Your task to perform on an android device: turn notification dots on Image 0: 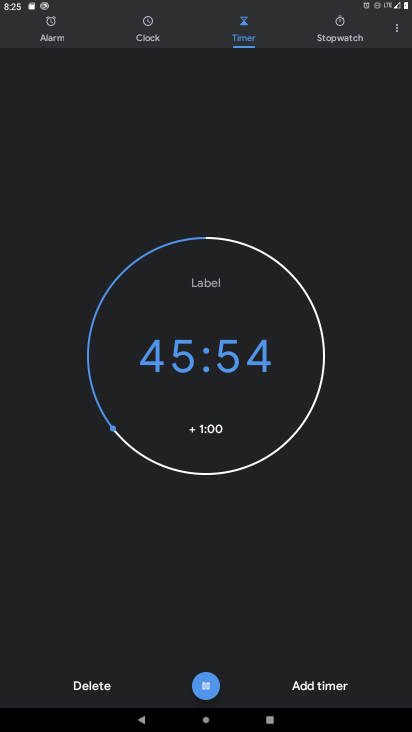
Step 0: press home button
Your task to perform on an android device: turn notification dots on Image 1: 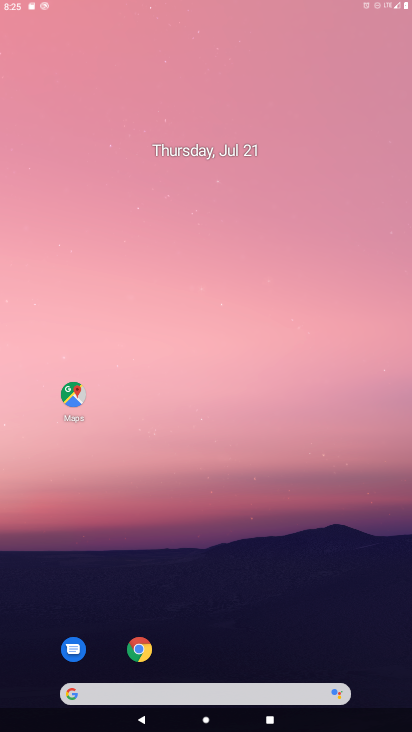
Step 1: drag from (347, 583) to (0, 139)
Your task to perform on an android device: turn notification dots on Image 2: 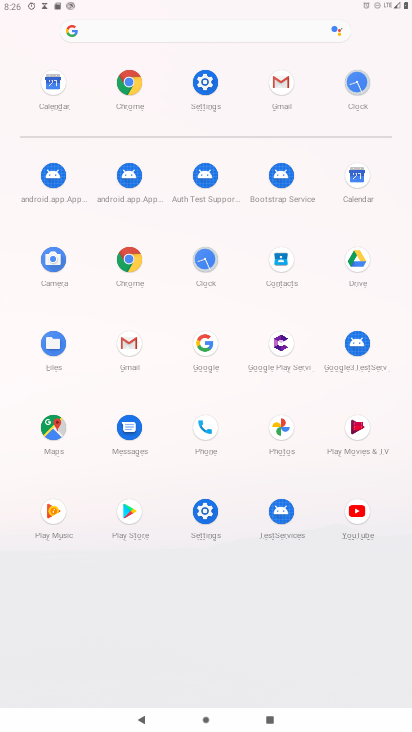
Step 2: click (199, 94)
Your task to perform on an android device: turn notification dots on Image 3: 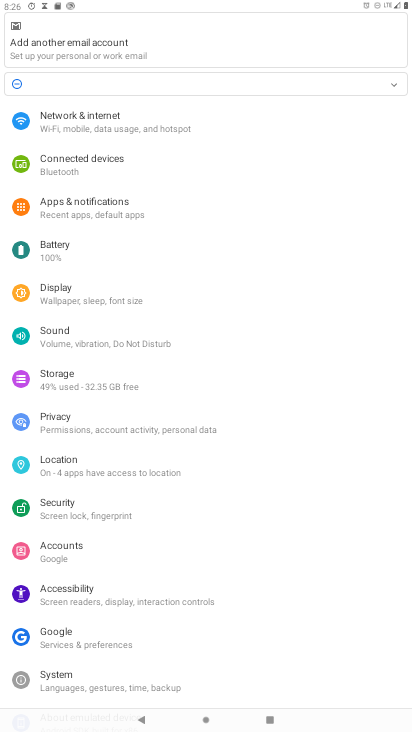
Step 3: click (110, 199)
Your task to perform on an android device: turn notification dots on Image 4: 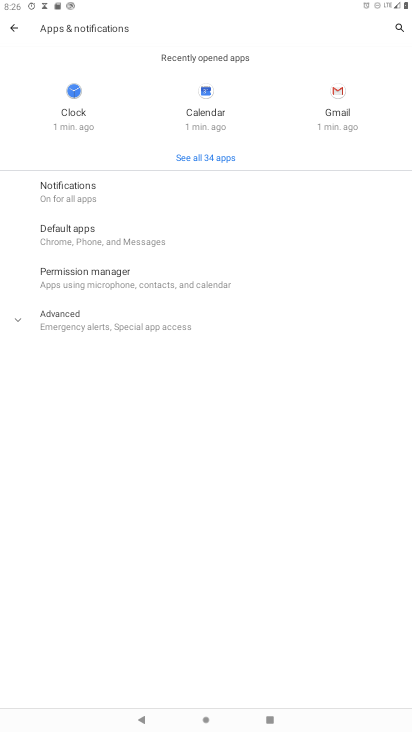
Step 4: click (110, 199)
Your task to perform on an android device: turn notification dots on Image 5: 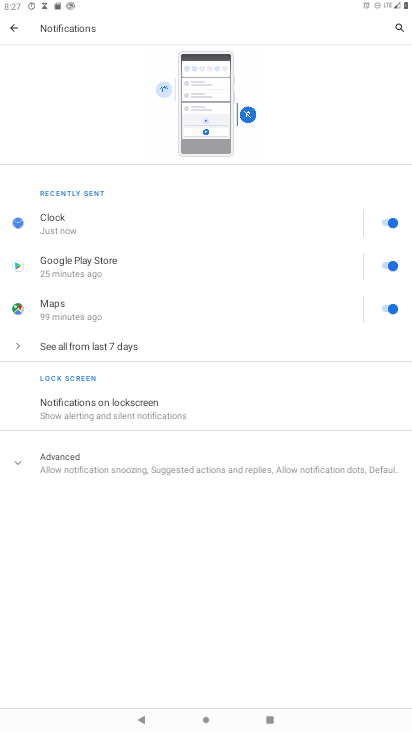
Step 5: click (61, 455)
Your task to perform on an android device: turn notification dots on Image 6: 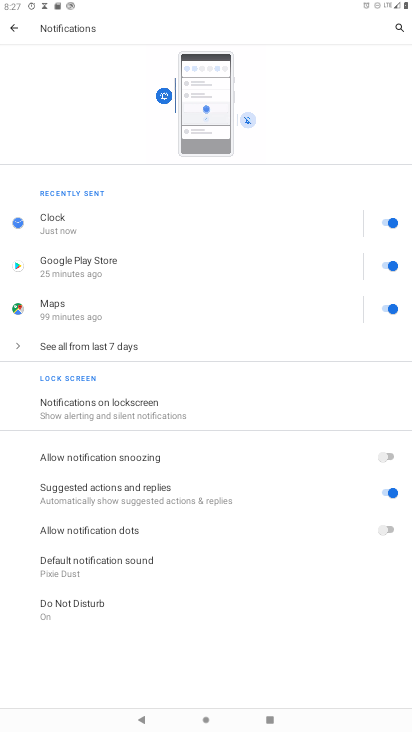
Step 6: click (126, 530)
Your task to perform on an android device: turn notification dots on Image 7: 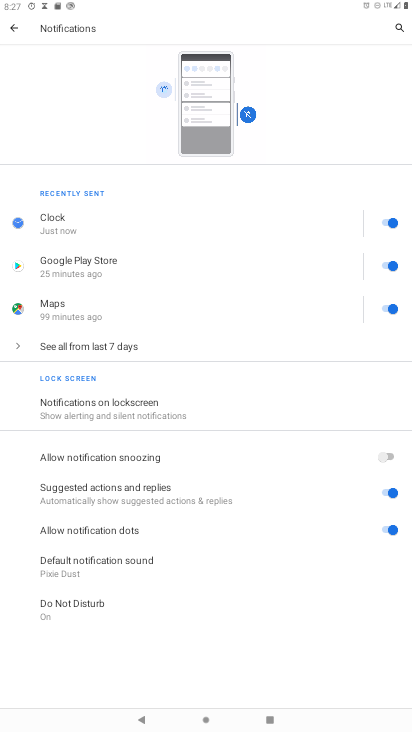
Step 7: task complete